Your task to perform on an android device: Open CNN.com Image 0: 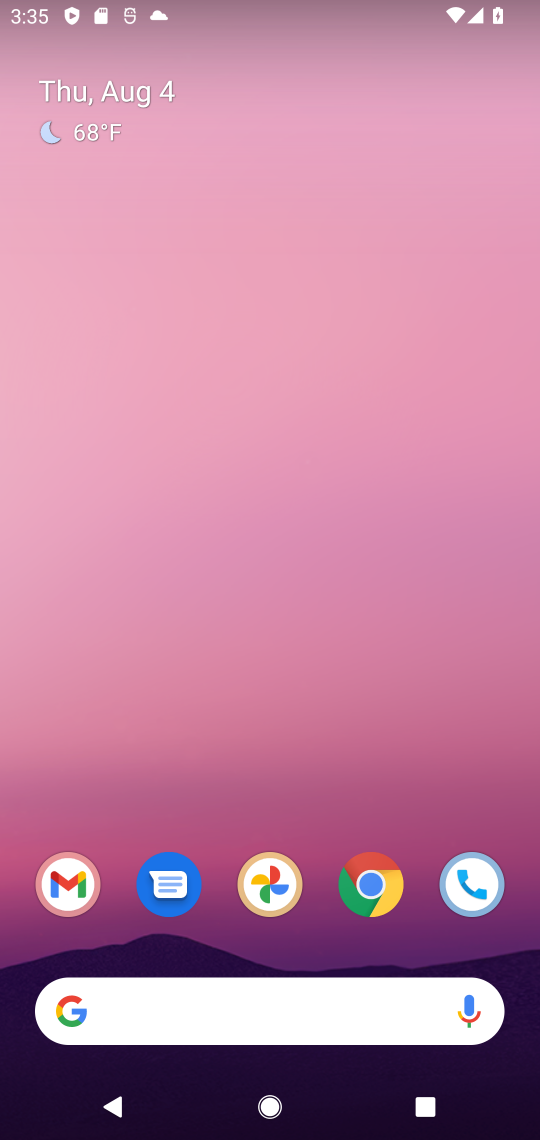
Step 0: drag from (298, 647) to (298, 63)
Your task to perform on an android device: Open CNN.com Image 1: 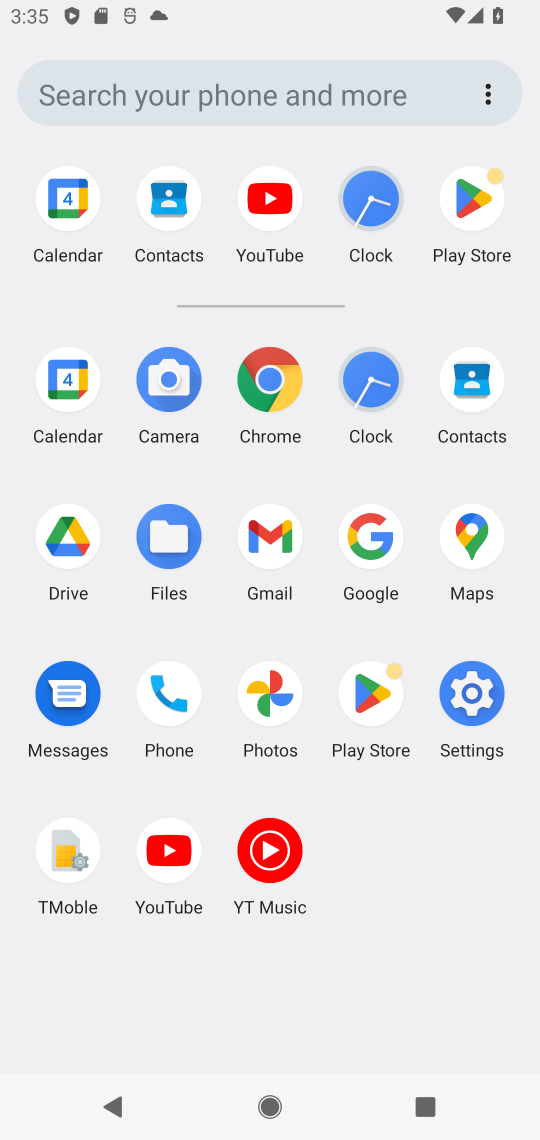
Step 1: click (249, 384)
Your task to perform on an android device: Open CNN.com Image 2: 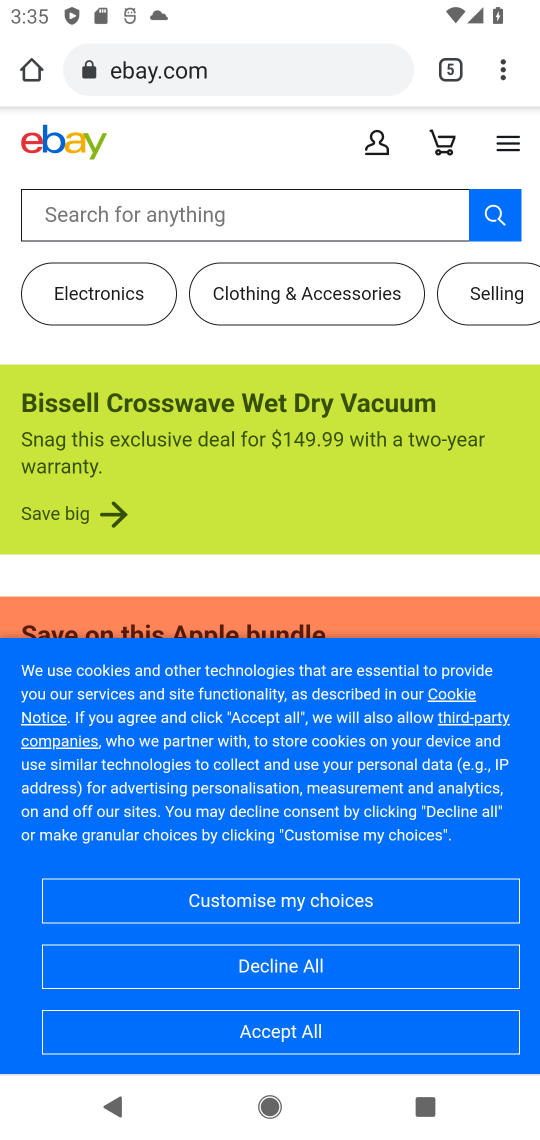
Step 2: click (504, 55)
Your task to perform on an android device: Open CNN.com Image 3: 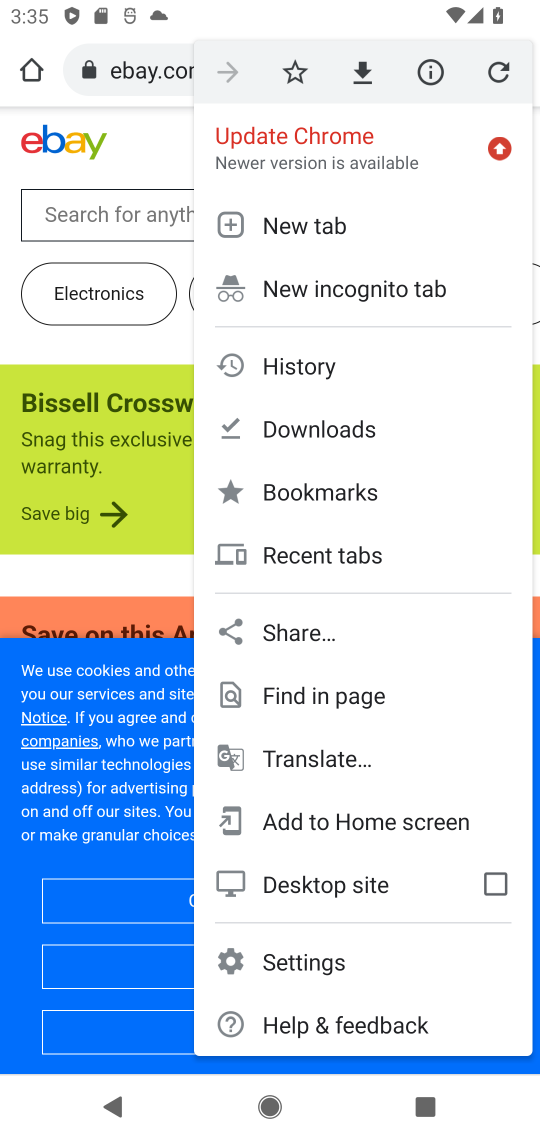
Step 3: click (333, 231)
Your task to perform on an android device: Open CNN.com Image 4: 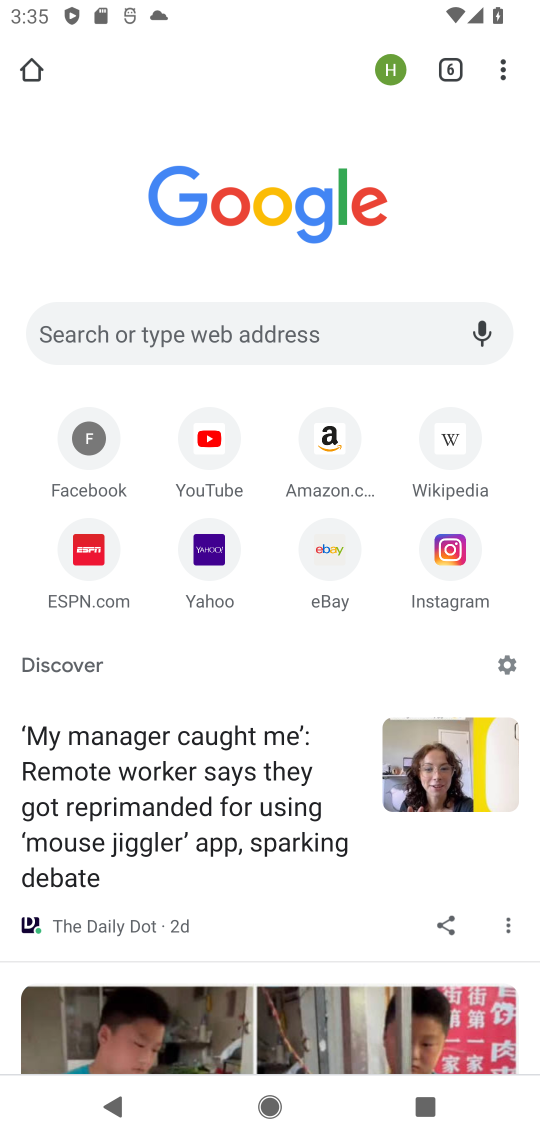
Step 4: click (294, 329)
Your task to perform on an android device: Open CNN.com Image 5: 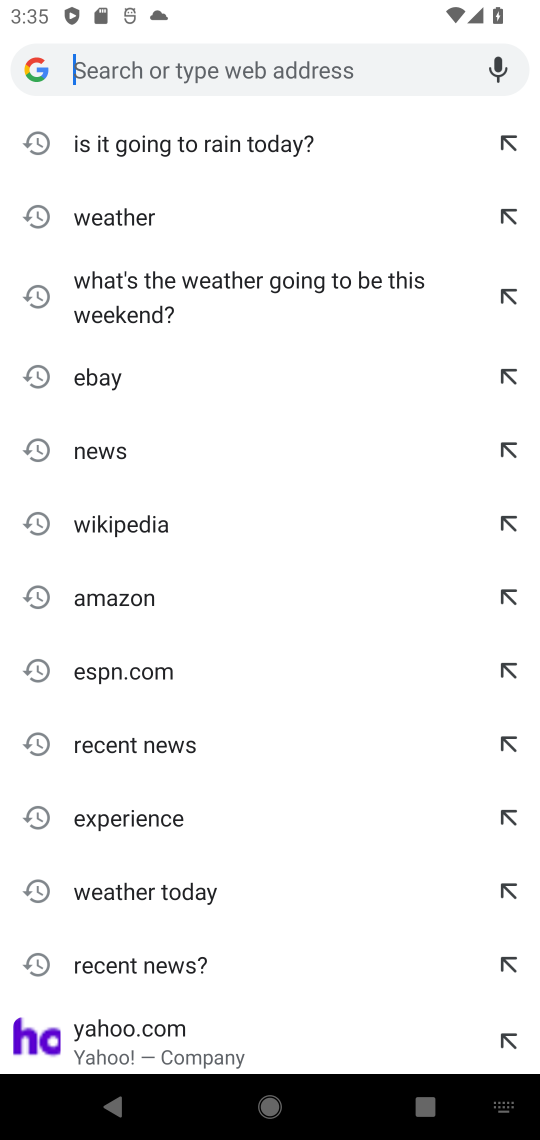
Step 5: type "CNN.com"
Your task to perform on an android device: Open CNN.com Image 6: 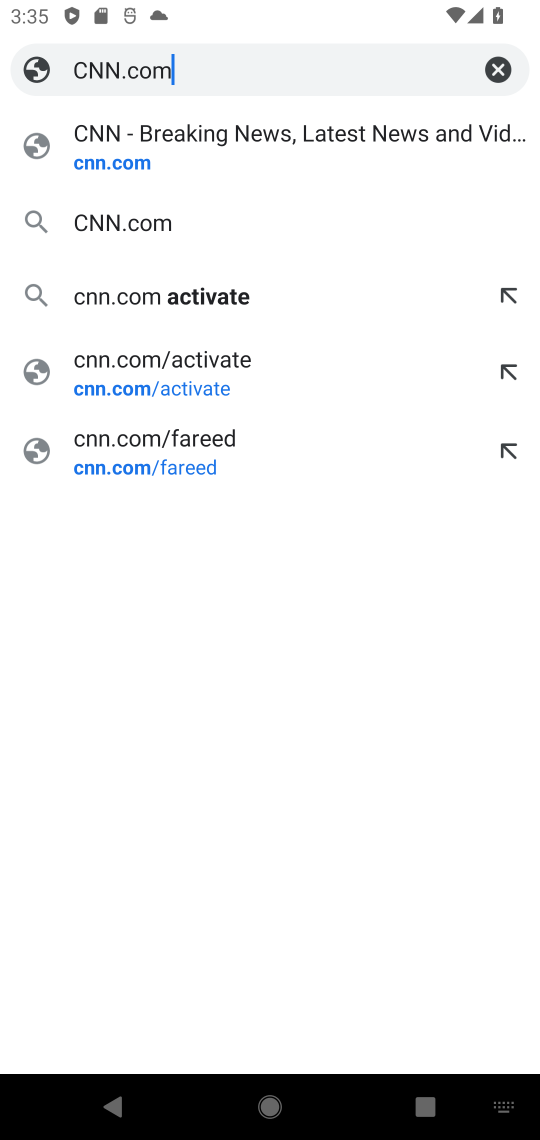
Step 6: click (160, 133)
Your task to perform on an android device: Open CNN.com Image 7: 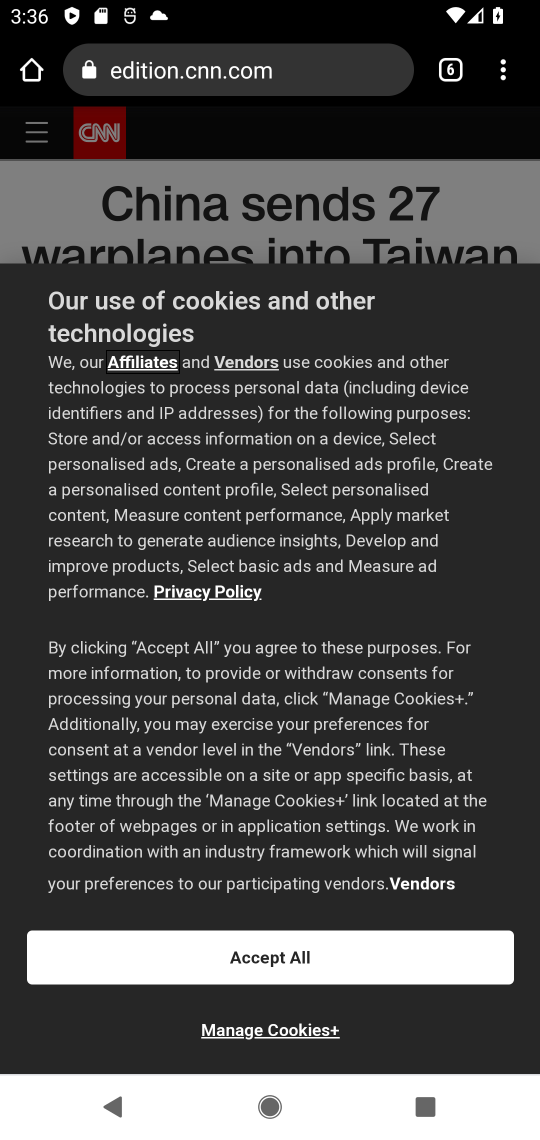
Step 7: task complete